Your task to perform on an android device: Search for "acer predator" on target, select the first entry, and add it to the cart. Image 0: 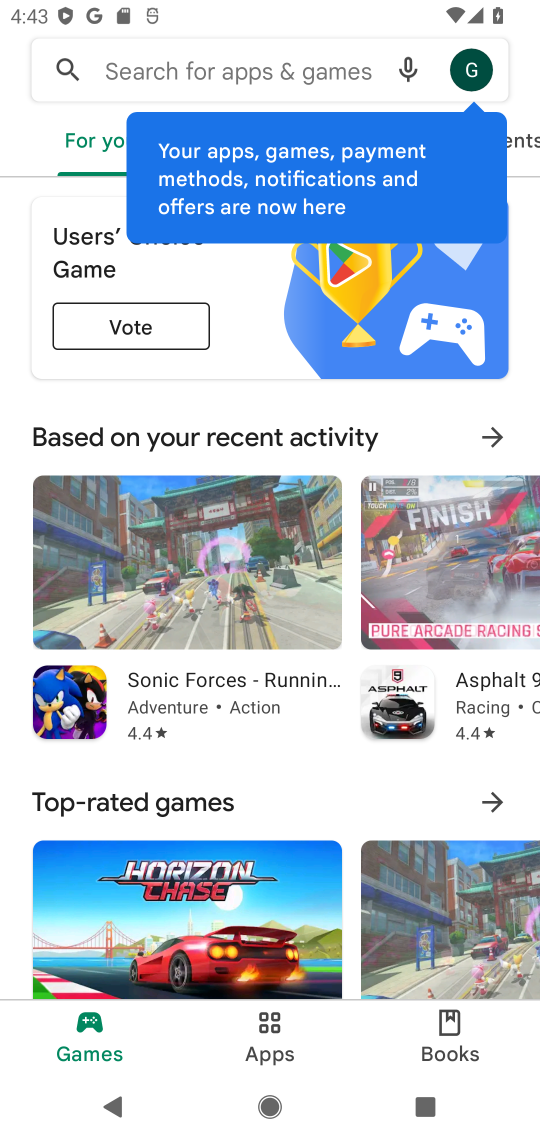
Step 0: press home button
Your task to perform on an android device: Search for "acer predator" on target, select the first entry, and add it to the cart. Image 1: 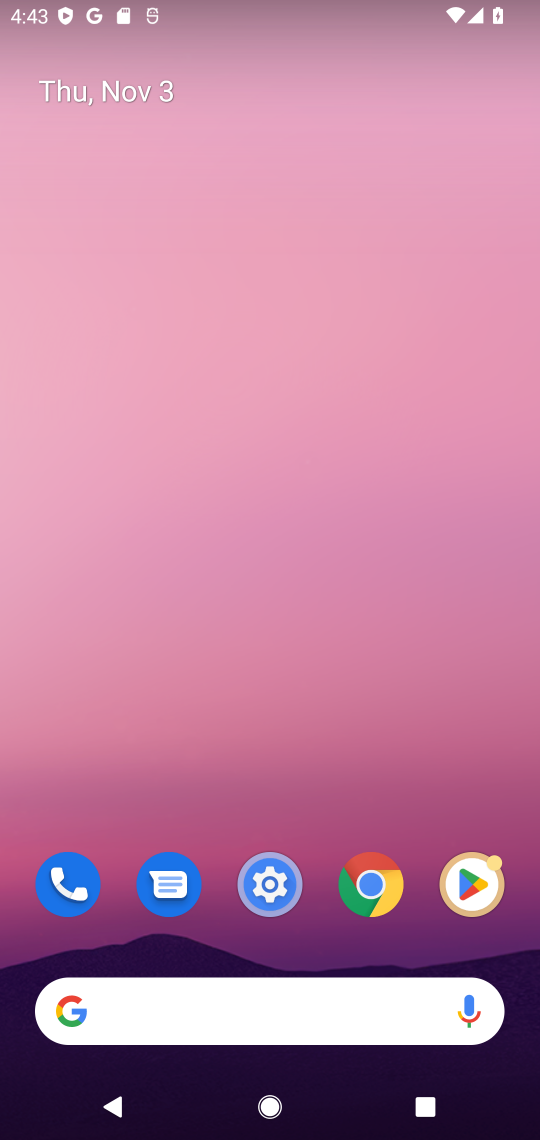
Step 1: click (103, 1008)
Your task to perform on an android device: Search for "acer predator" on target, select the first entry, and add it to the cart. Image 2: 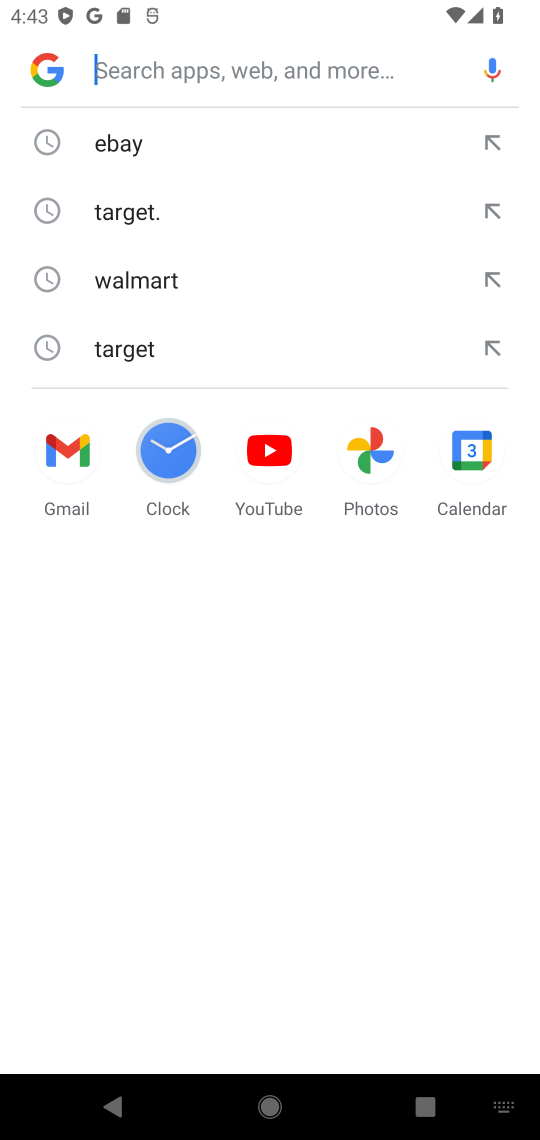
Step 2: type "target"
Your task to perform on an android device: Search for "acer predator" on target, select the first entry, and add it to the cart. Image 3: 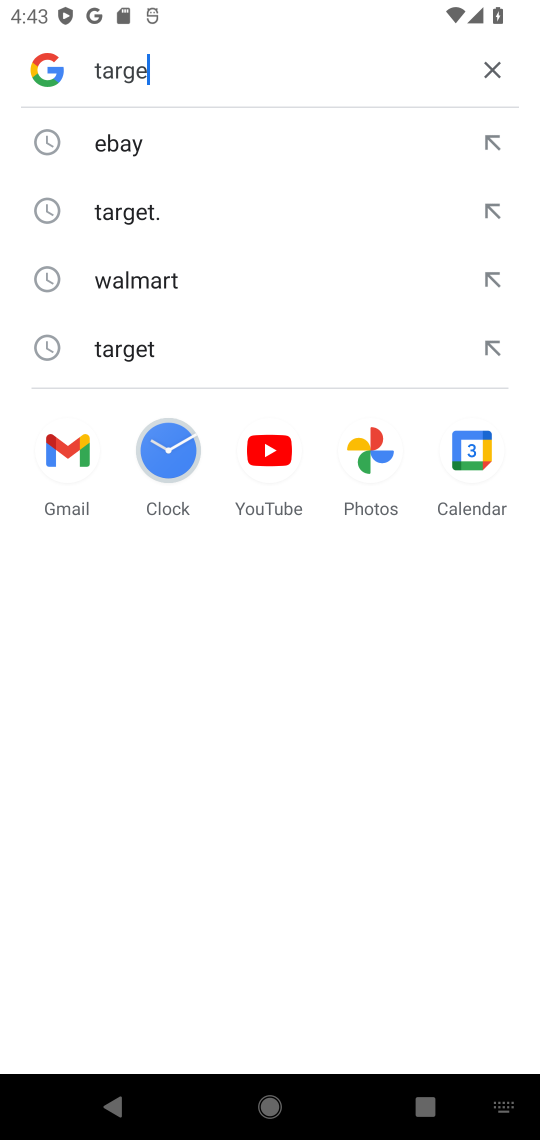
Step 3: press enter
Your task to perform on an android device: Search for "acer predator" on target, select the first entry, and add it to the cart. Image 4: 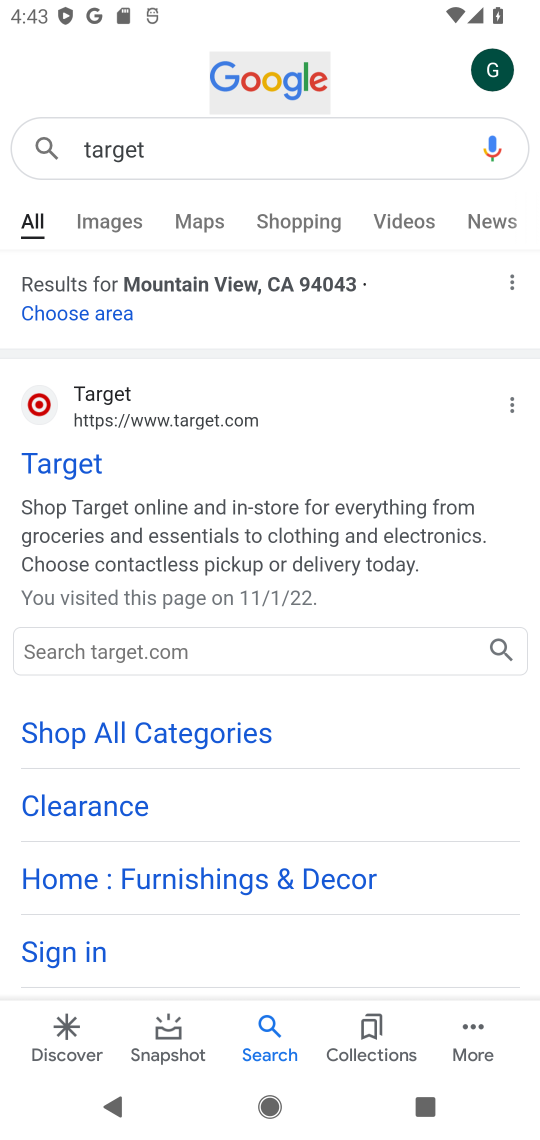
Step 4: click (72, 467)
Your task to perform on an android device: Search for "acer predator" on target, select the first entry, and add it to the cart. Image 5: 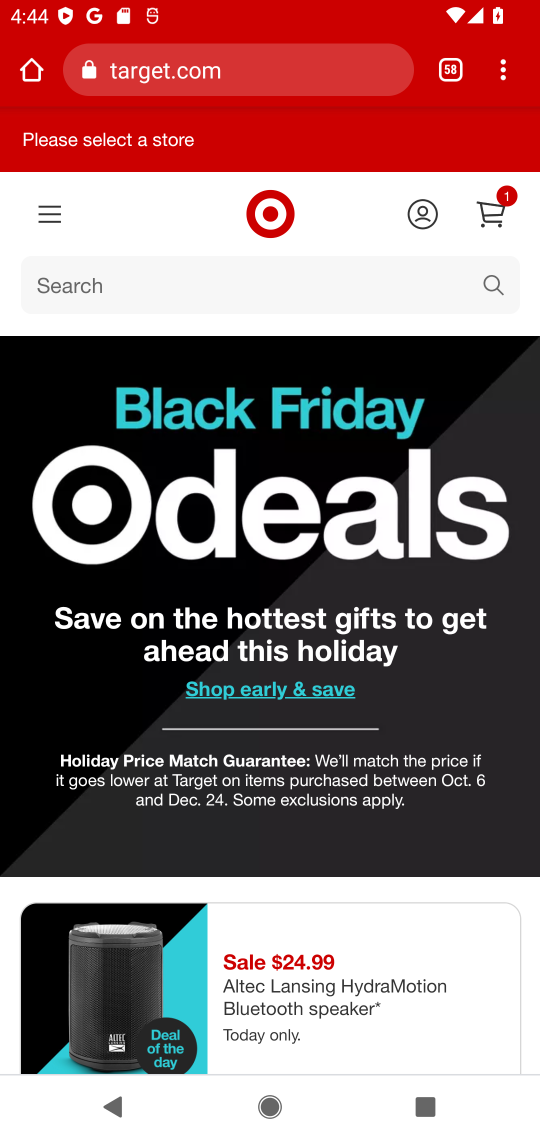
Step 5: click (109, 288)
Your task to perform on an android device: Search for "acer predator" on target, select the first entry, and add it to the cart. Image 6: 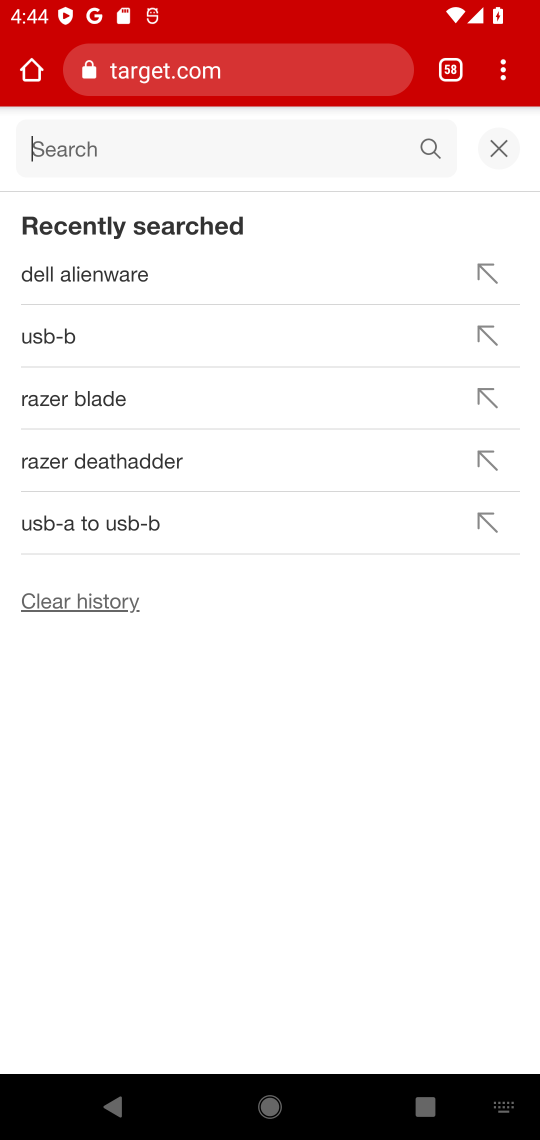
Step 6: type "acer predator"
Your task to perform on an android device: Search for "acer predator" on target, select the first entry, and add it to the cart. Image 7: 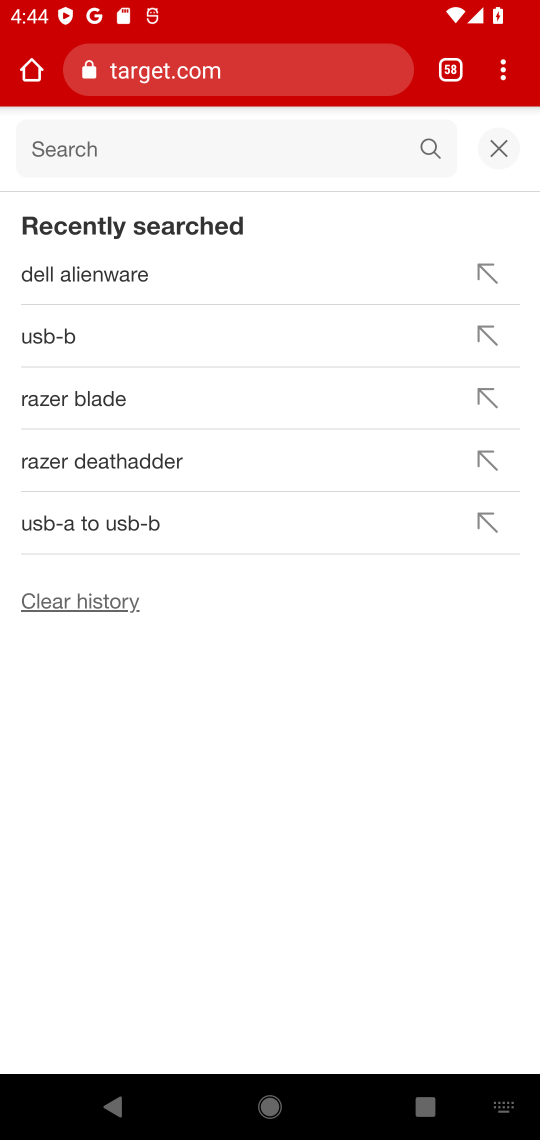
Step 7: press enter
Your task to perform on an android device: Search for "acer predator" on target, select the first entry, and add it to the cart. Image 8: 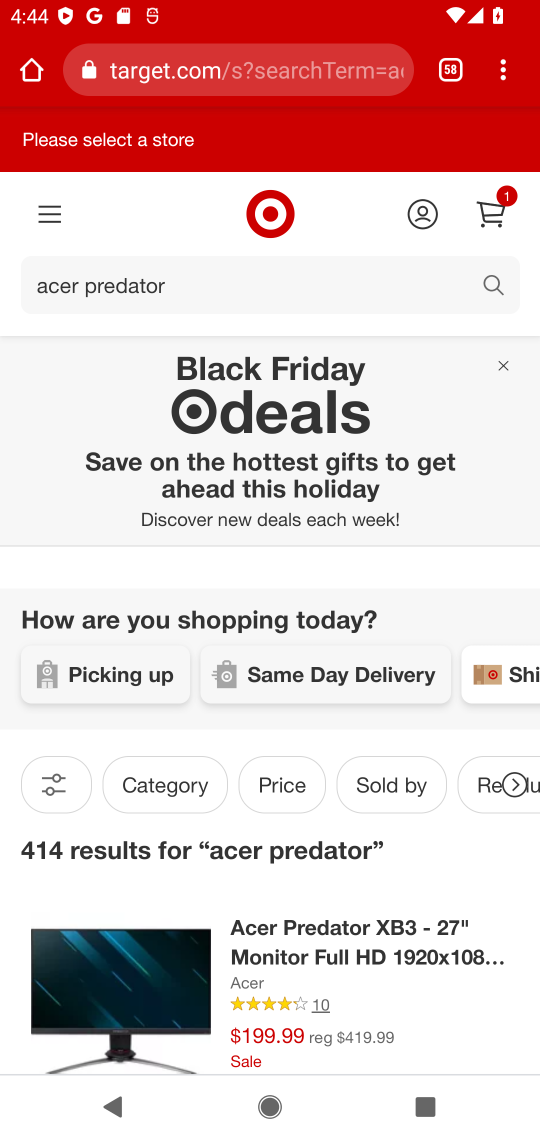
Step 8: drag from (326, 963) to (345, 599)
Your task to perform on an android device: Search for "acer predator" on target, select the first entry, and add it to the cart. Image 9: 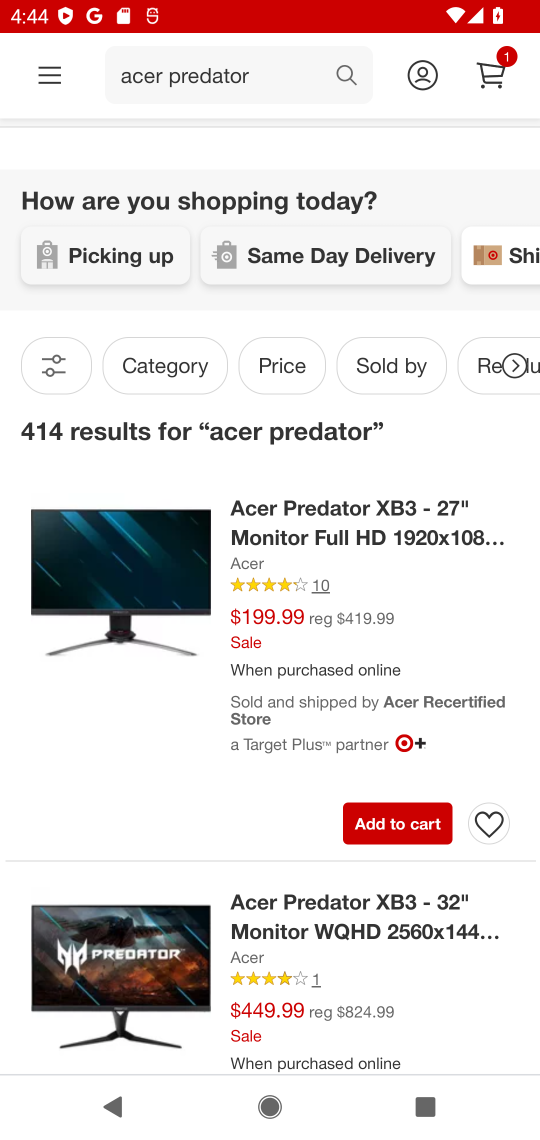
Step 9: click (386, 833)
Your task to perform on an android device: Search for "acer predator" on target, select the first entry, and add it to the cart. Image 10: 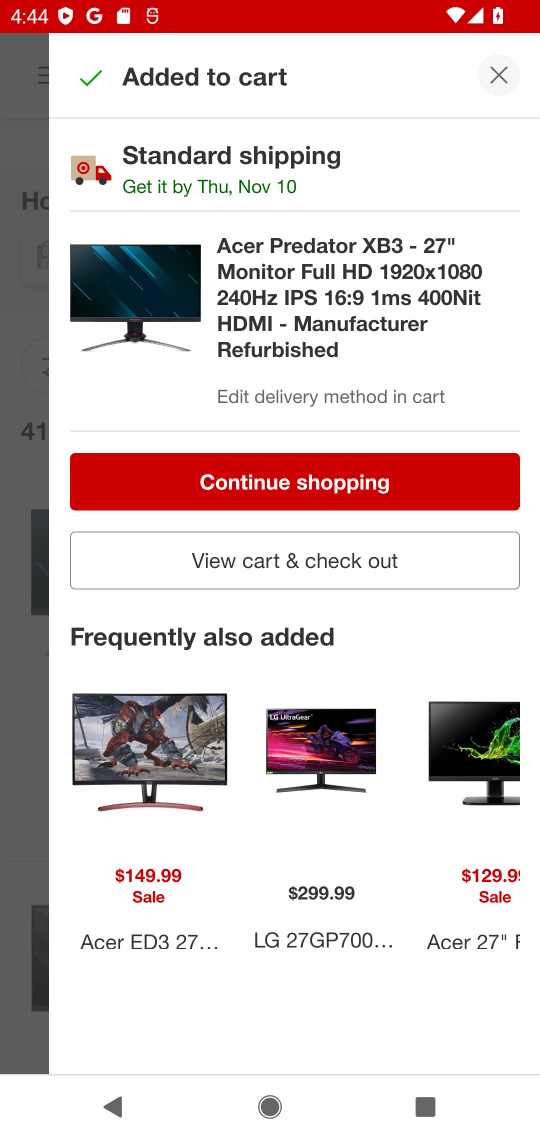
Step 10: task complete